Your task to perform on an android device: toggle wifi Image 0: 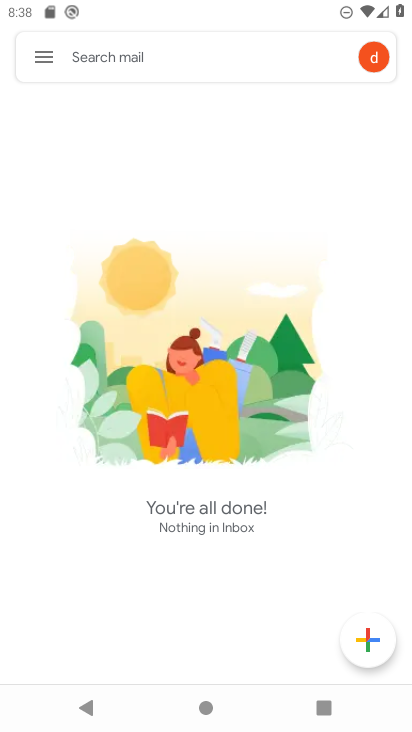
Step 0: press home button
Your task to perform on an android device: toggle wifi Image 1: 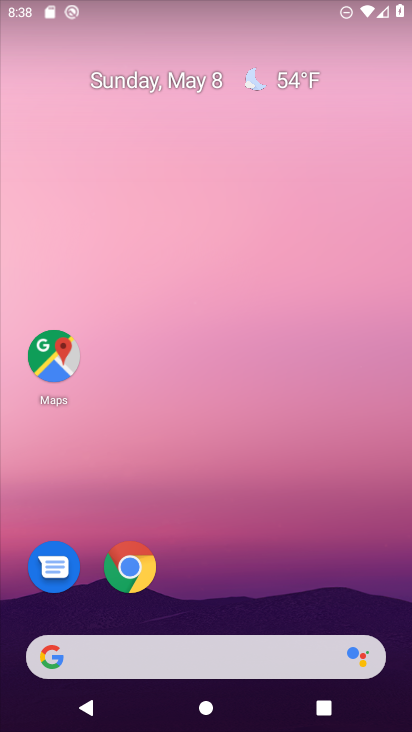
Step 1: drag from (292, 568) to (254, 21)
Your task to perform on an android device: toggle wifi Image 2: 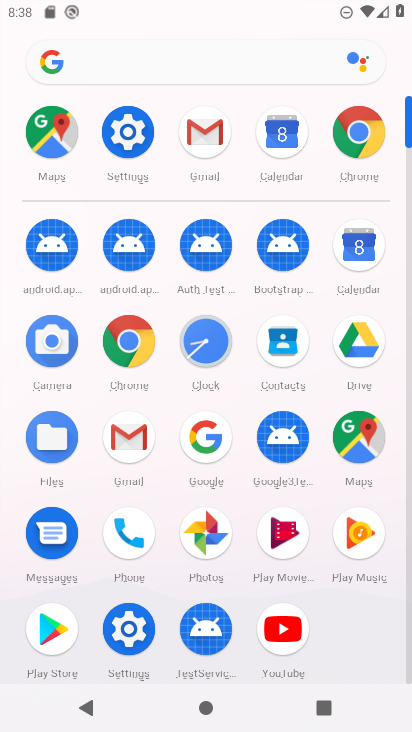
Step 2: click (125, 142)
Your task to perform on an android device: toggle wifi Image 3: 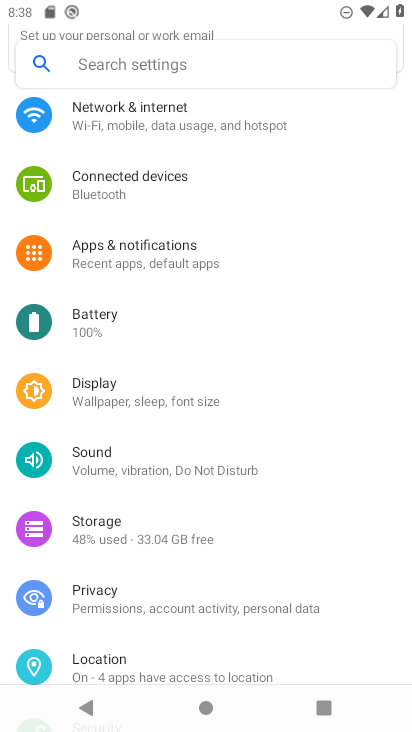
Step 3: drag from (231, 484) to (221, 582)
Your task to perform on an android device: toggle wifi Image 4: 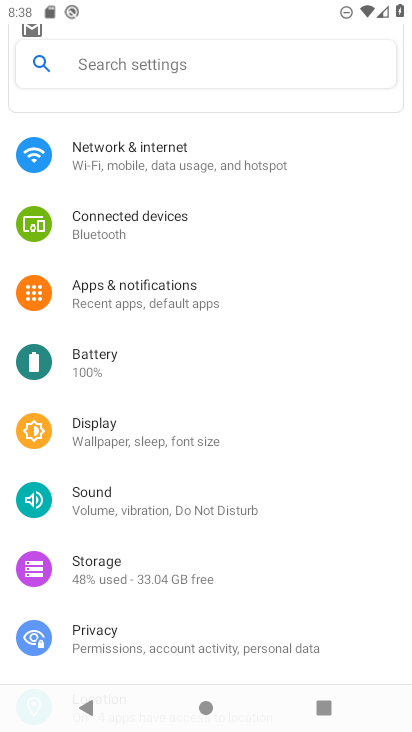
Step 4: click (124, 138)
Your task to perform on an android device: toggle wifi Image 5: 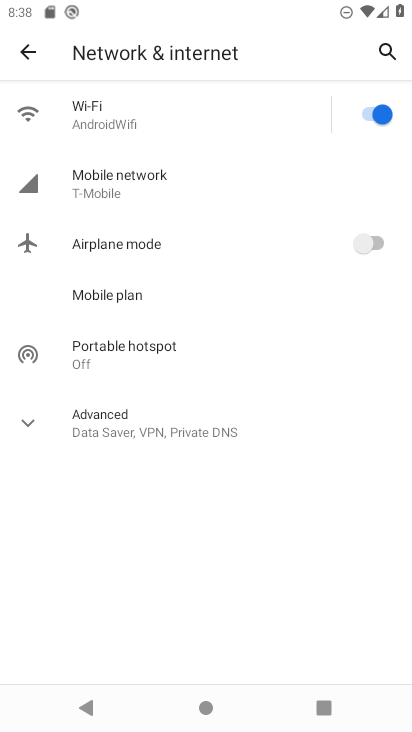
Step 5: click (366, 127)
Your task to perform on an android device: toggle wifi Image 6: 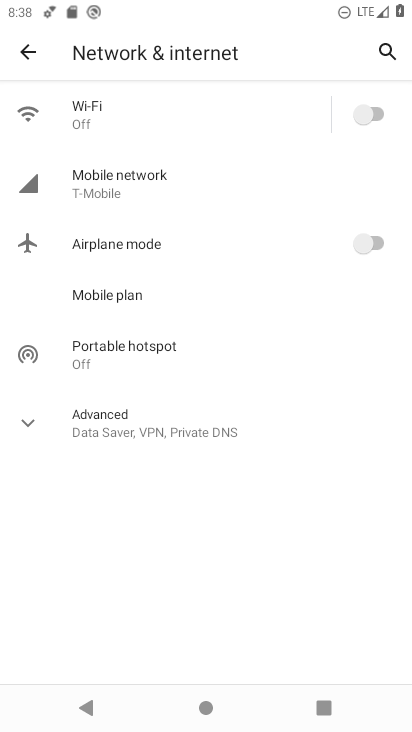
Step 6: task complete